Your task to perform on an android device: Open maps Image 0: 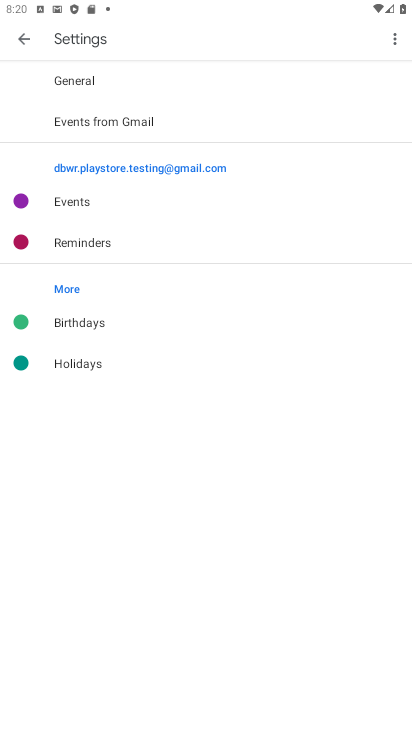
Step 0: press home button
Your task to perform on an android device: Open maps Image 1: 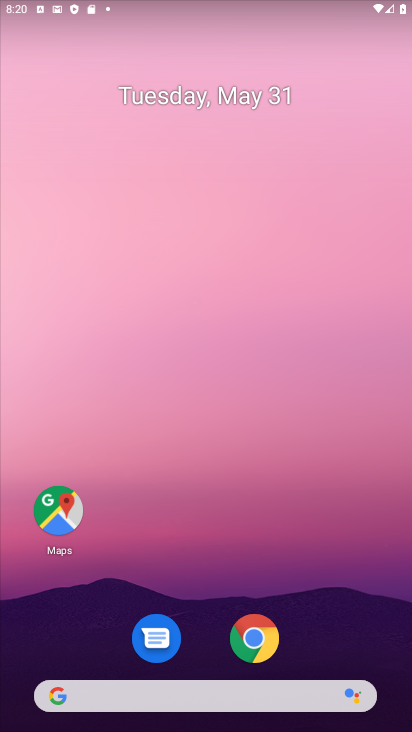
Step 1: click (43, 503)
Your task to perform on an android device: Open maps Image 2: 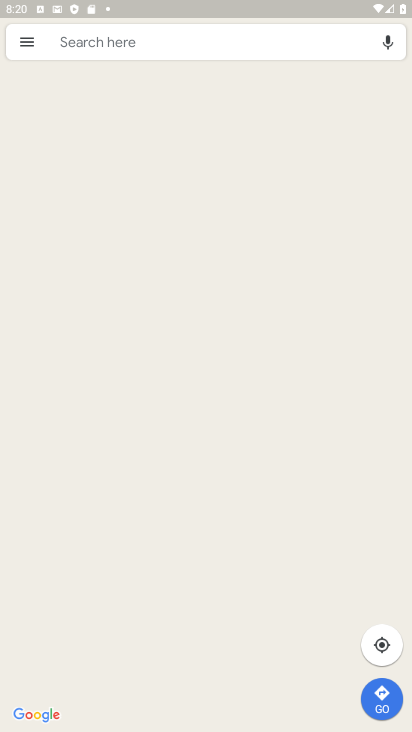
Step 2: task complete